Your task to perform on an android device: open chrome privacy settings Image 0: 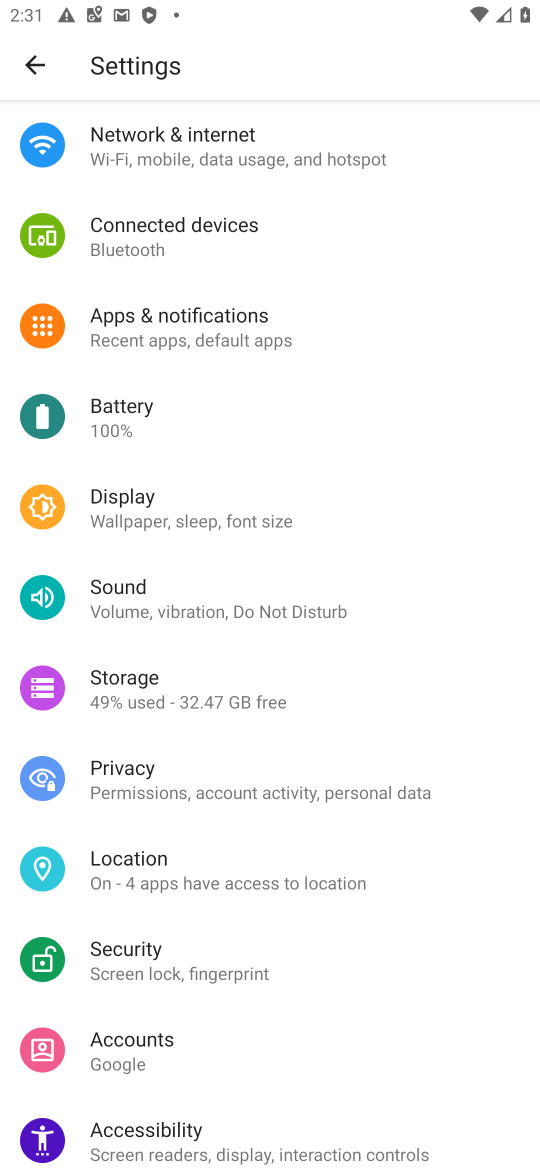
Step 0: press home button
Your task to perform on an android device: open chrome privacy settings Image 1: 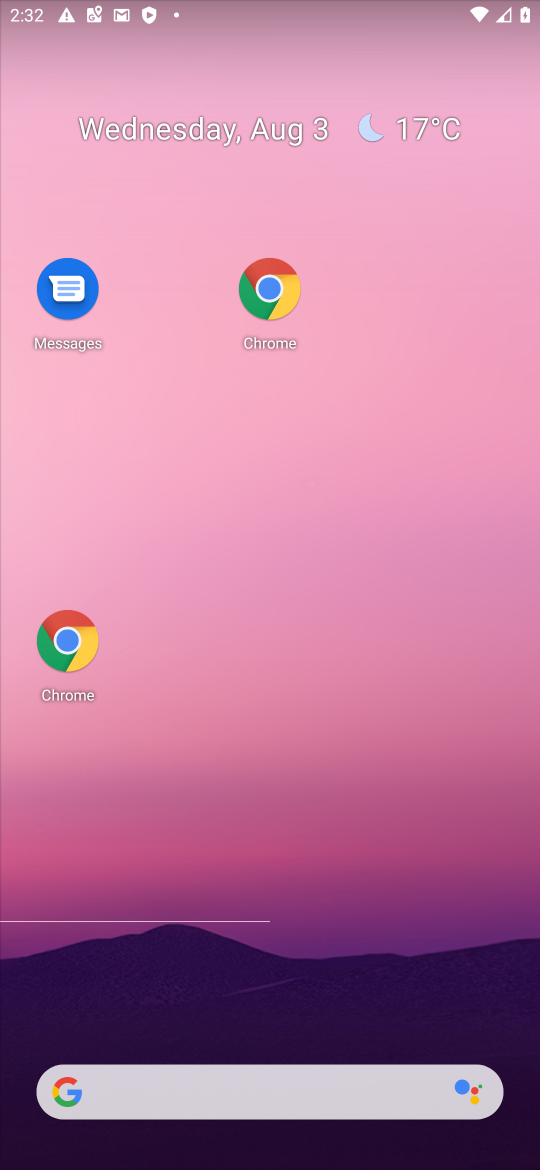
Step 1: click (250, 292)
Your task to perform on an android device: open chrome privacy settings Image 2: 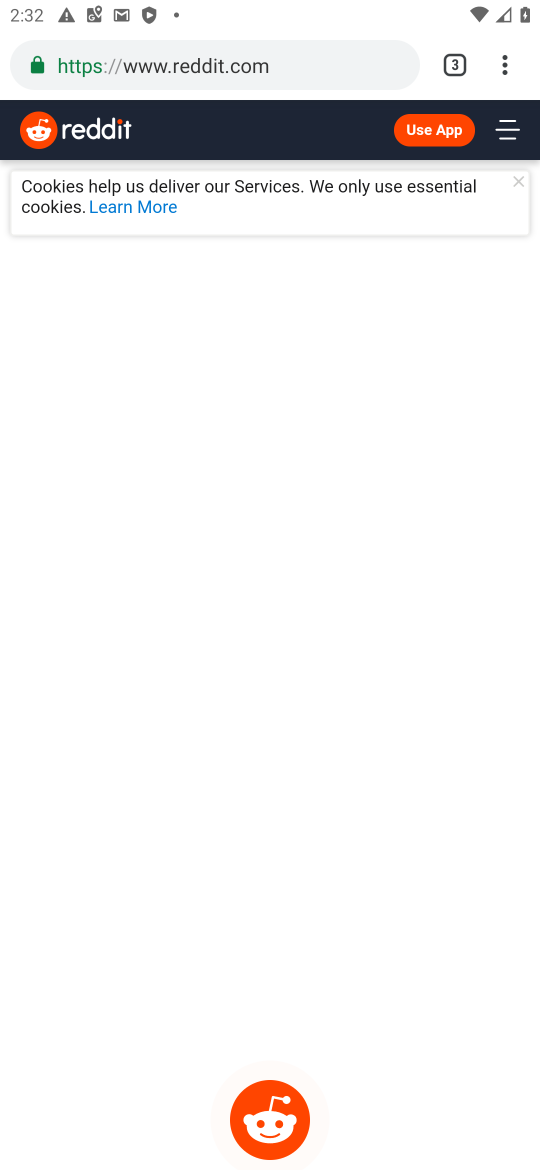
Step 2: click (508, 78)
Your task to perform on an android device: open chrome privacy settings Image 3: 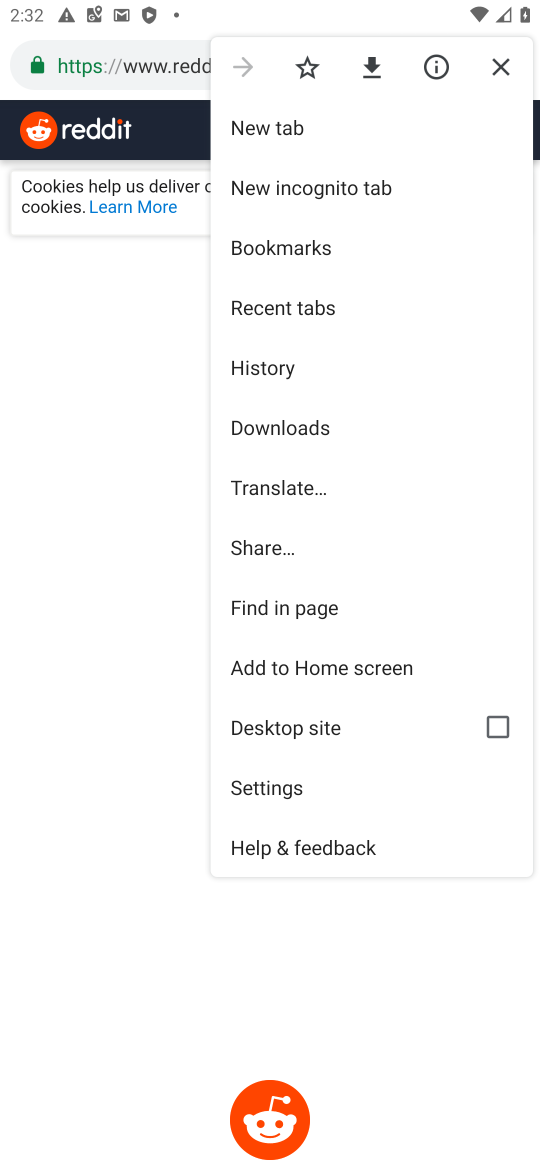
Step 3: click (279, 794)
Your task to perform on an android device: open chrome privacy settings Image 4: 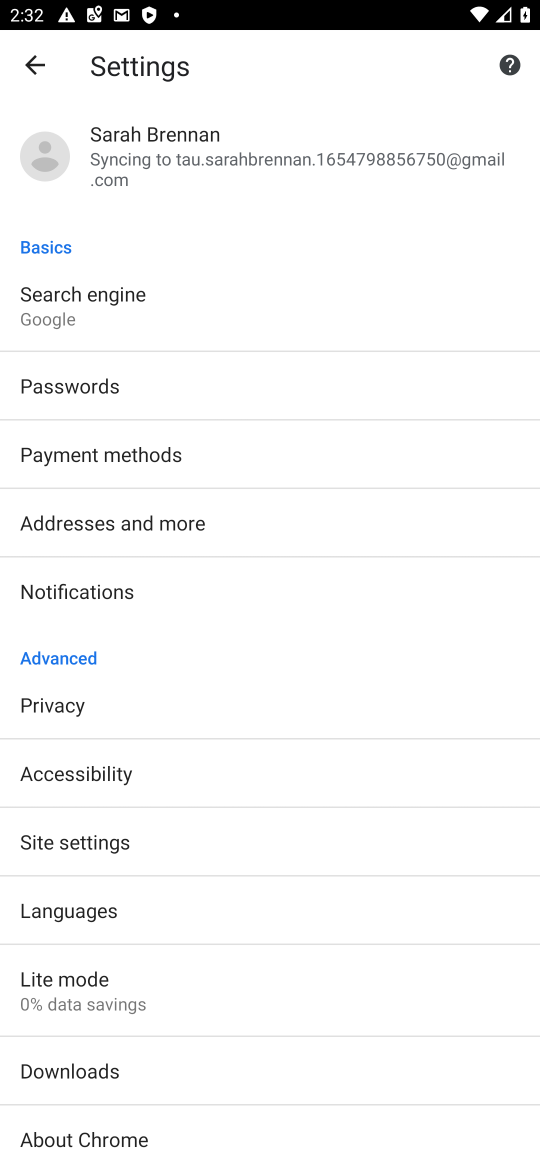
Step 4: click (77, 722)
Your task to perform on an android device: open chrome privacy settings Image 5: 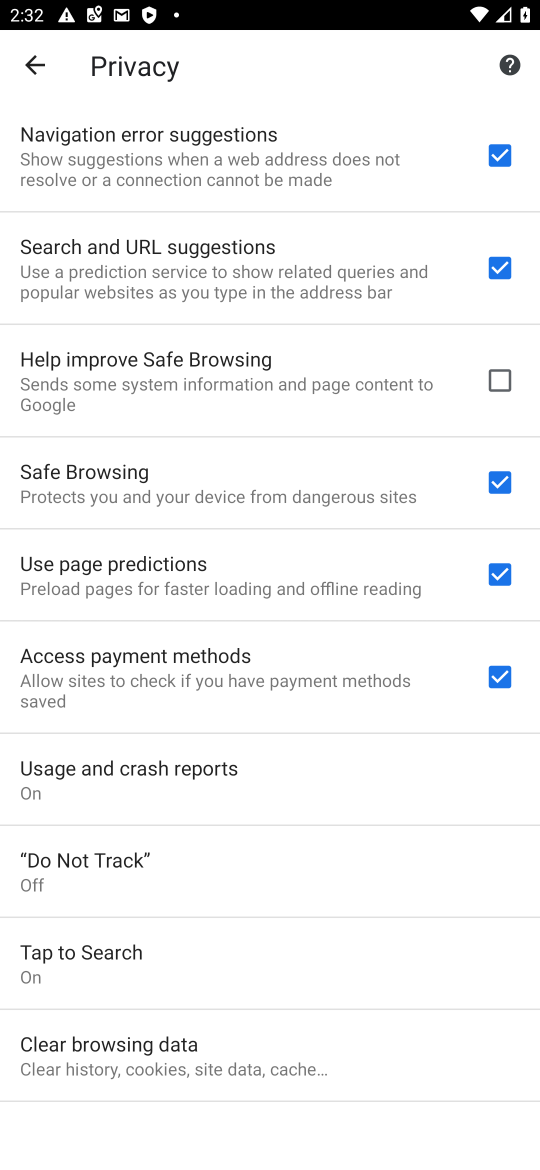
Step 5: task complete